Your task to perform on an android device: turn on improve location accuracy Image 0: 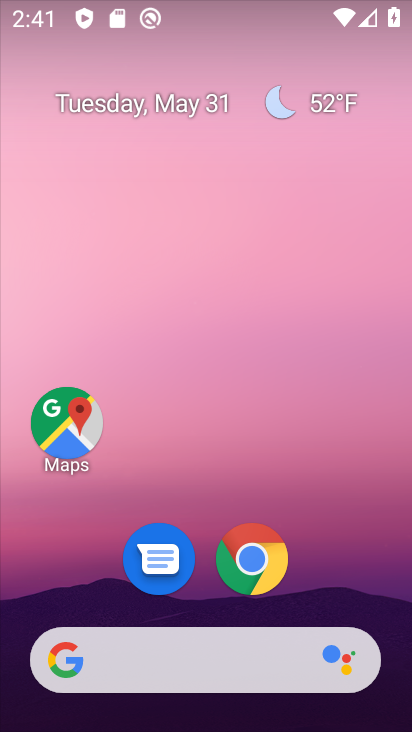
Step 0: drag from (208, 602) to (213, 57)
Your task to perform on an android device: turn on improve location accuracy Image 1: 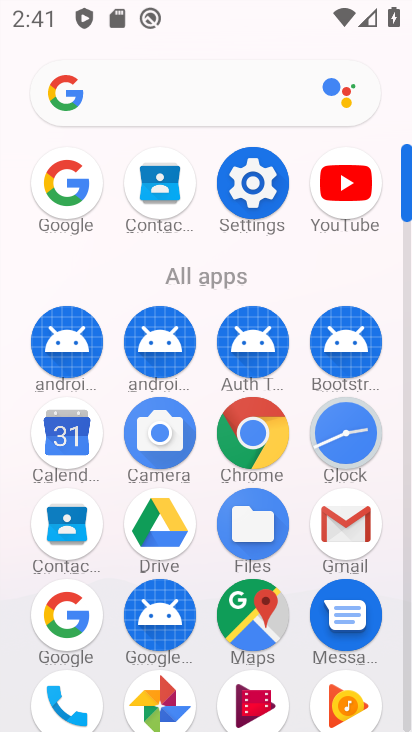
Step 1: click (241, 183)
Your task to perform on an android device: turn on improve location accuracy Image 2: 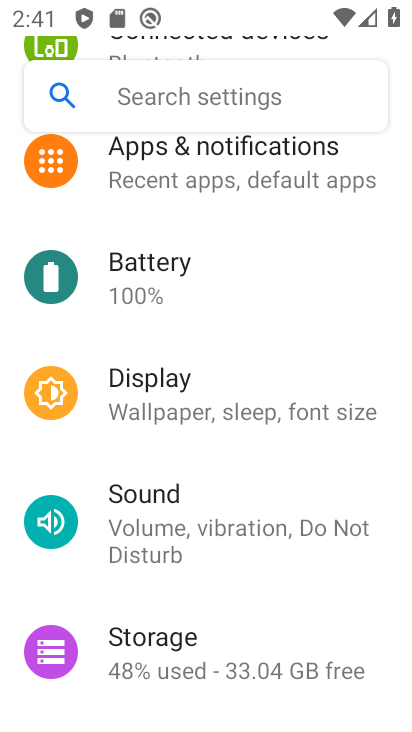
Step 2: drag from (207, 636) to (224, 308)
Your task to perform on an android device: turn on improve location accuracy Image 3: 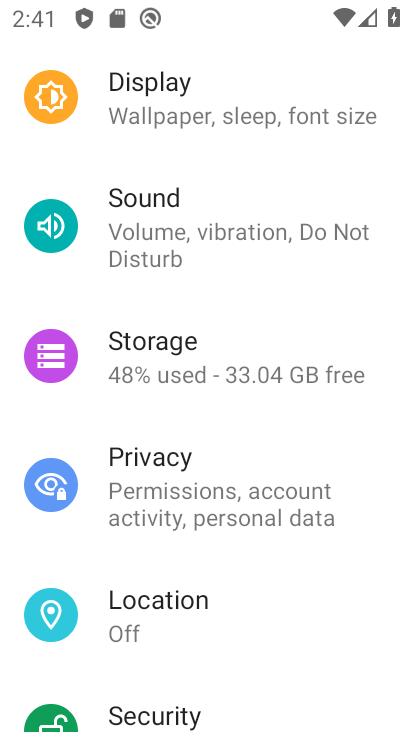
Step 3: click (193, 603)
Your task to perform on an android device: turn on improve location accuracy Image 4: 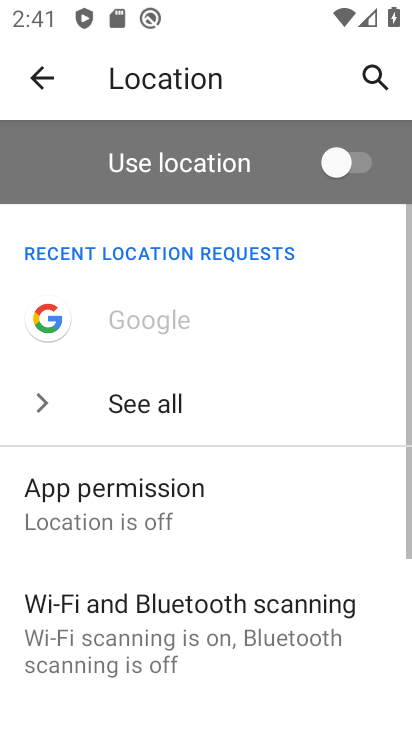
Step 4: drag from (186, 607) to (163, 303)
Your task to perform on an android device: turn on improve location accuracy Image 5: 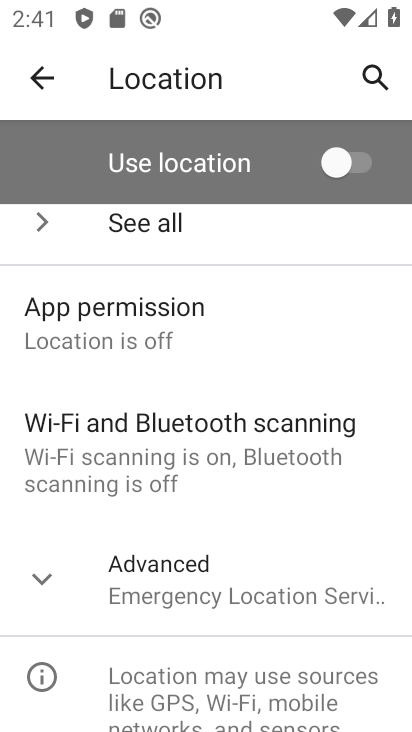
Step 5: click (186, 599)
Your task to perform on an android device: turn on improve location accuracy Image 6: 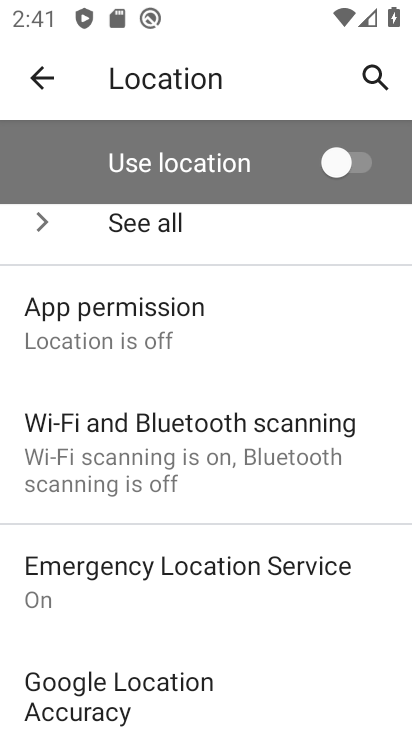
Step 6: drag from (222, 641) to (245, 208)
Your task to perform on an android device: turn on improve location accuracy Image 7: 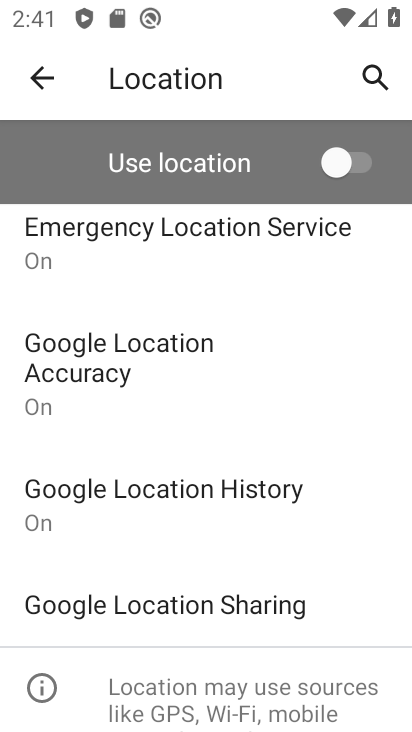
Step 7: drag from (220, 664) to (258, 365)
Your task to perform on an android device: turn on improve location accuracy Image 8: 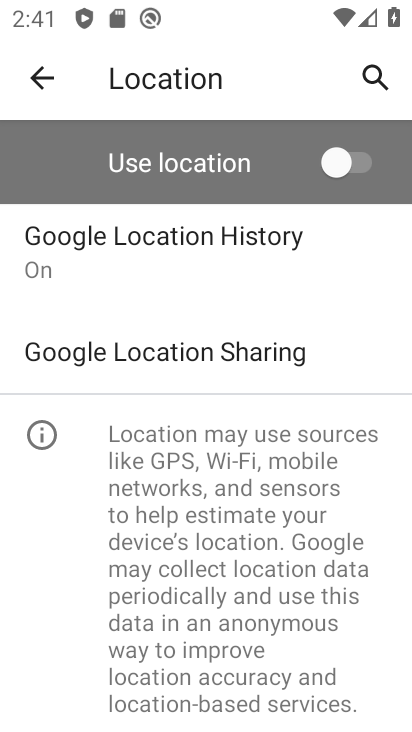
Step 8: drag from (229, 289) to (236, 635)
Your task to perform on an android device: turn on improve location accuracy Image 9: 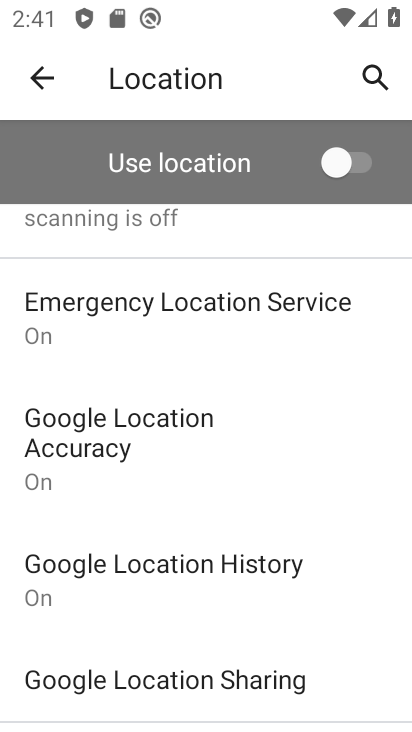
Step 9: click (212, 426)
Your task to perform on an android device: turn on improve location accuracy Image 10: 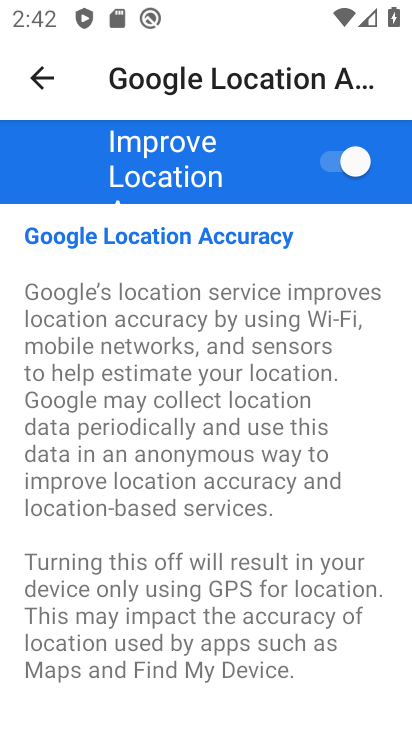
Step 10: task complete